Your task to perform on an android device: Go to privacy settings Image 0: 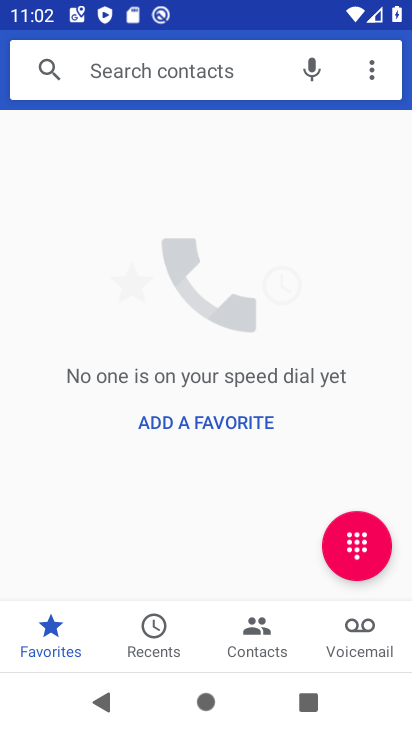
Step 0: press back button
Your task to perform on an android device: Go to privacy settings Image 1: 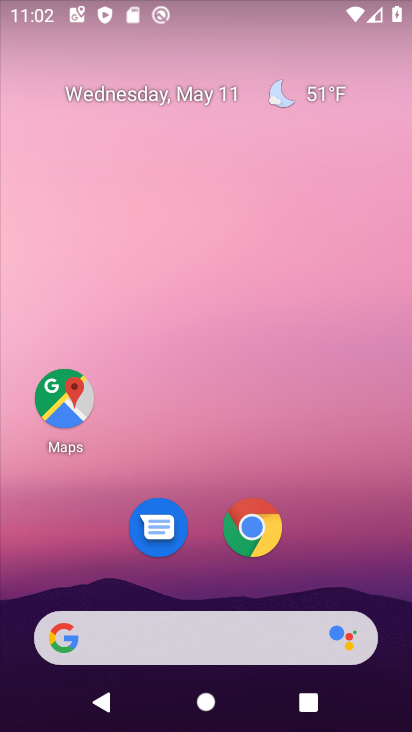
Step 1: drag from (346, 553) to (226, 81)
Your task to perform on an android device: Go to privacy settings Image 2: 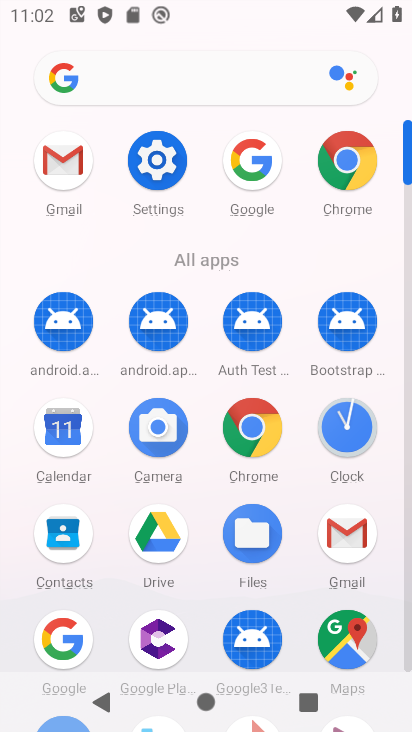
Step 2: click (157, 162)
Your task to perform on an android device: Go to privacy settings Image 3: 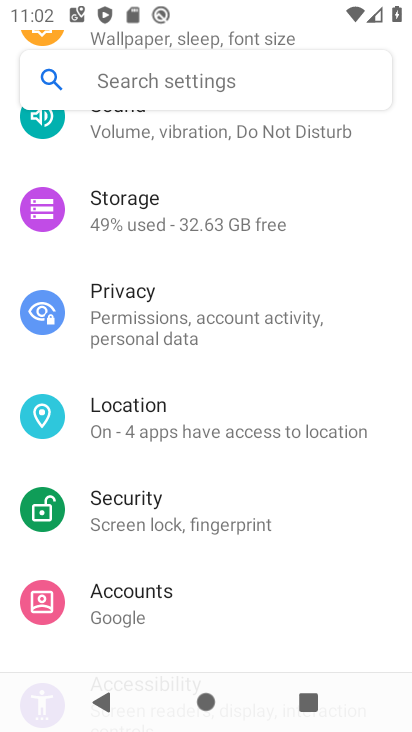
Step 3: click (133, 293)
Your task to perform on an android device: Go to privacy settings Image 4: 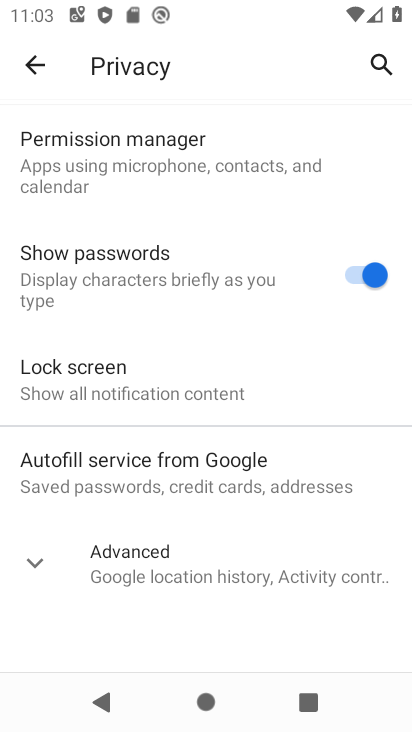
Step 4: task complete